Your task to perform on an android device: Is it going to rain today? Image 0: 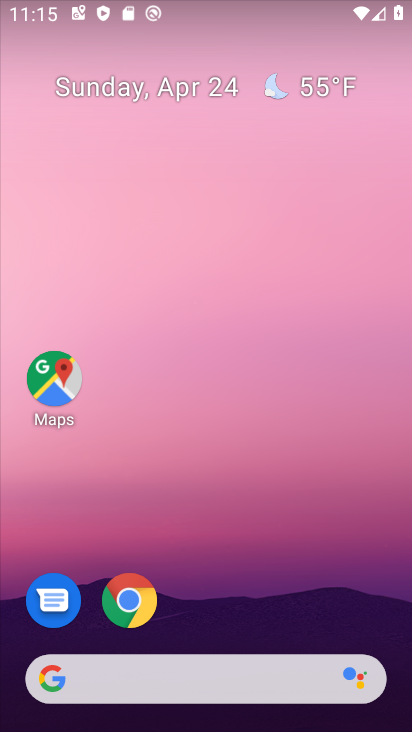
Step 0: click (234, 683)
Your task to perform on an android device: Is it going to rain today? Image 1: 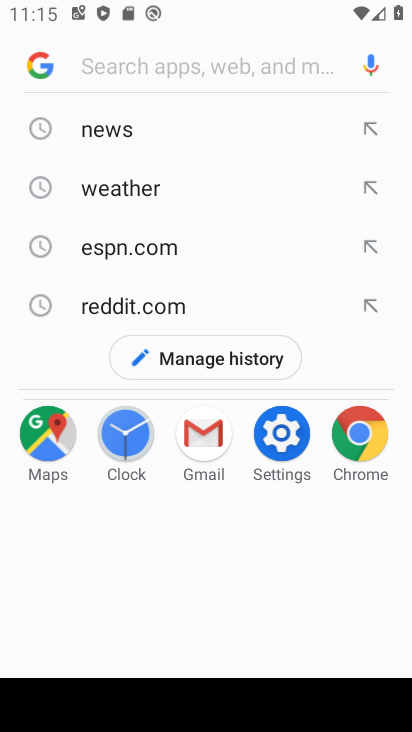
Step 1: click (54, 65)
Your task to perform on an android device: Is it going to rain today? Image 2: 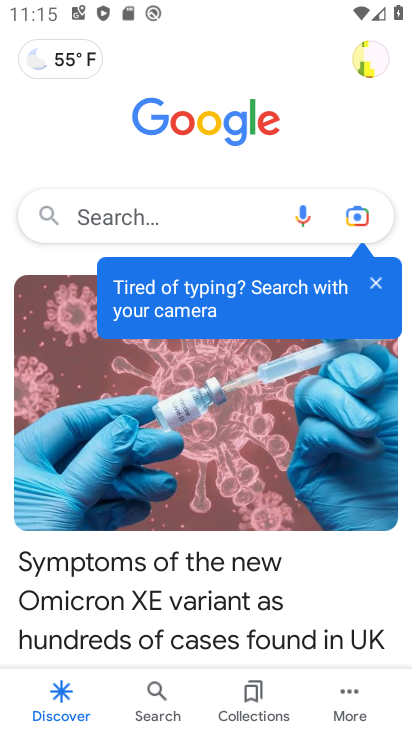
Step 2: click (54, 65)
Your task to perform on an android device: Is it going to rain today? Image 3: 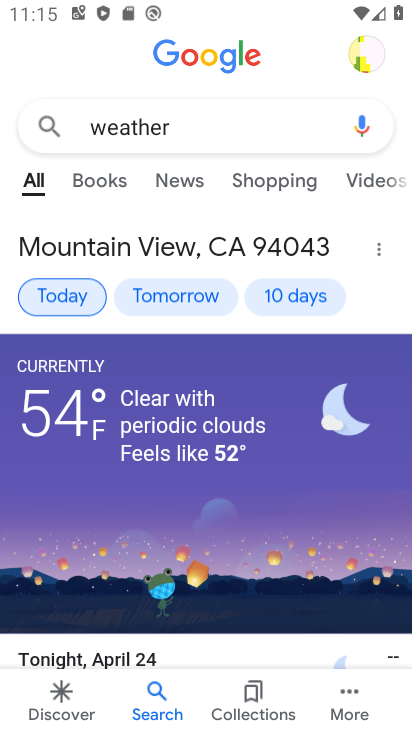
Step 3: task complete